Your task to perform on an android device: see sites visited before in the chrome app Image 0: 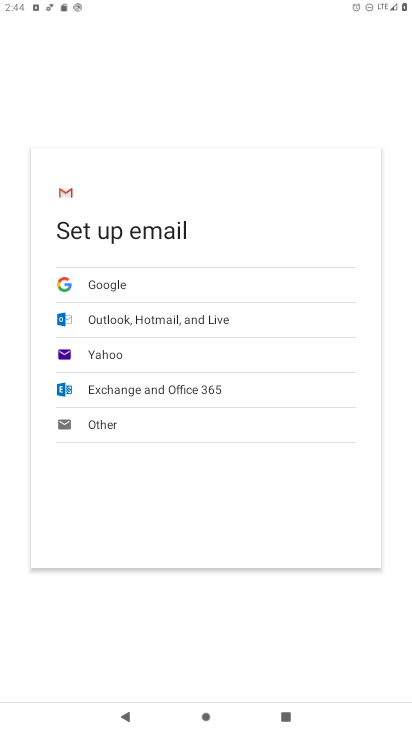
Step 0: press home button
Your task to perform on an android device: see sites visited before in the chrome app Image 1: 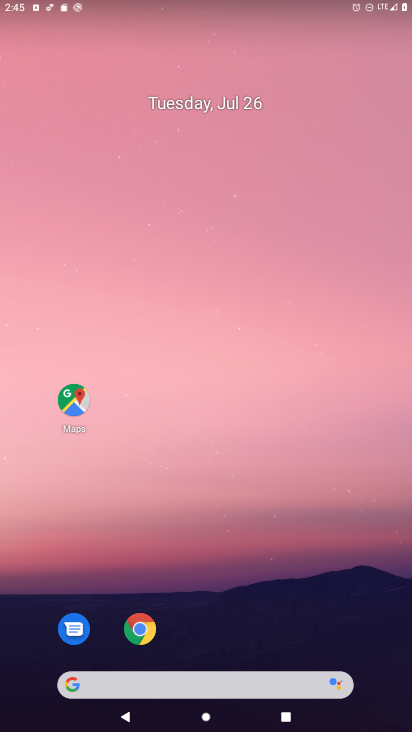
Step 1: click (140, 630)
Your task to perform on an android device: see sites visited before in the chrome app Image 2: 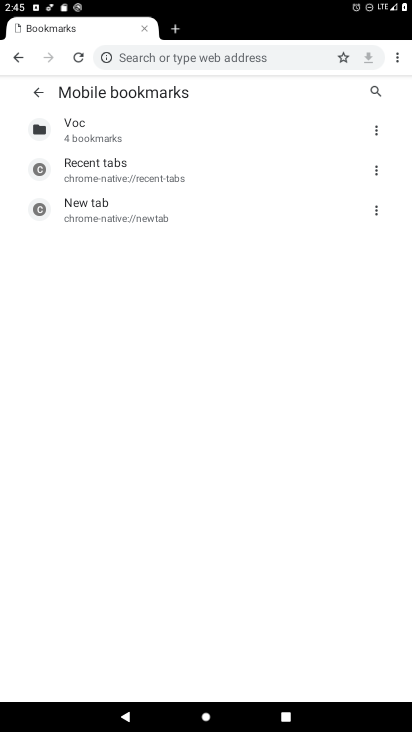
Step 2: click (397, 64)
Your task to perform on an android device: see sites visited before in the chrome app Image 3: 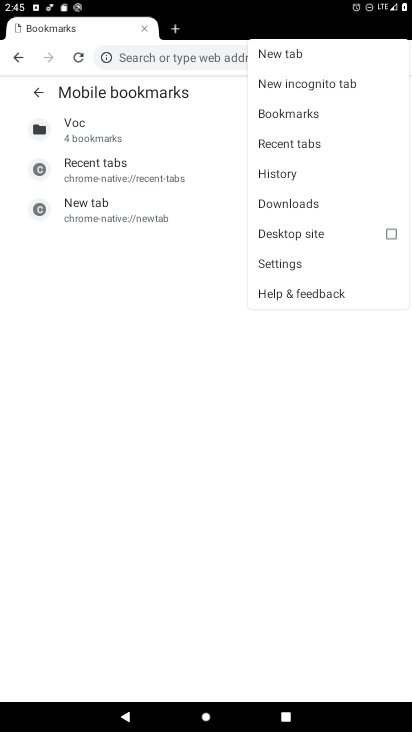
Step 3: click (286, 171)
Your task to perform on an android device: see sites visited before in the chrome app Image 4: 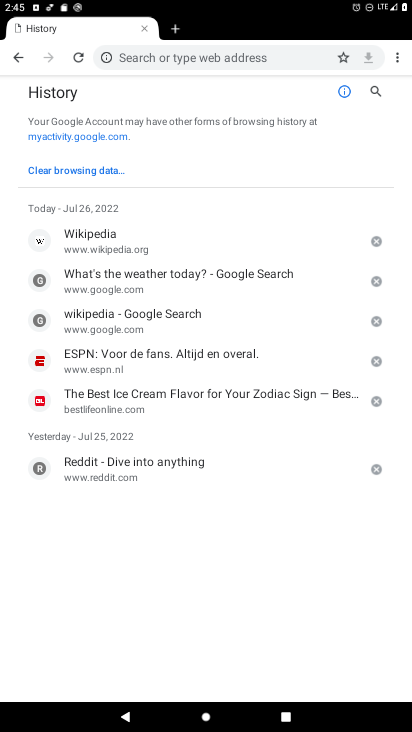
Step 4: task complete